Your task to perform on an android device: turn on showing notifications on the lock screen Image 0: 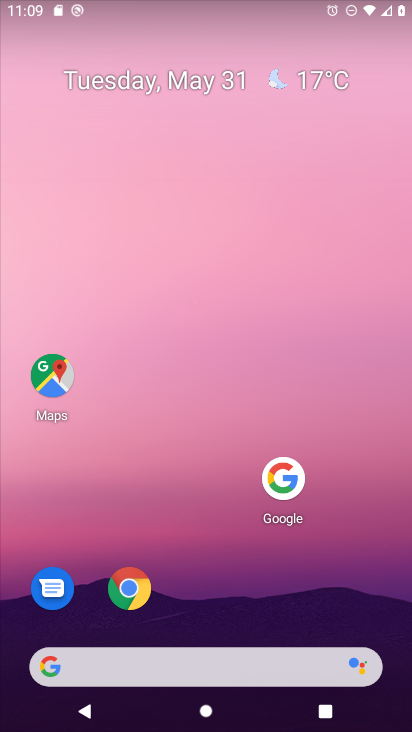
Step 0: drag from (174, 659) to (232, 141)
Your task to perform on an android device: turn on showing notifications on the lock screen Image 1: 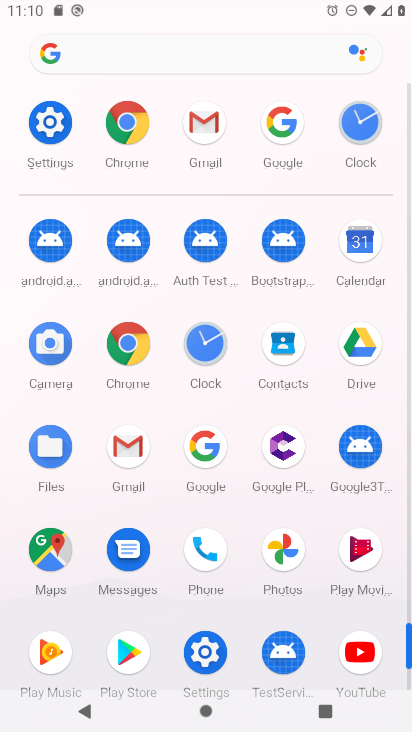
Step 1: click (55, 126)
Your task to perform on an android device: turn on showing notifications on the lock screen Image 2: 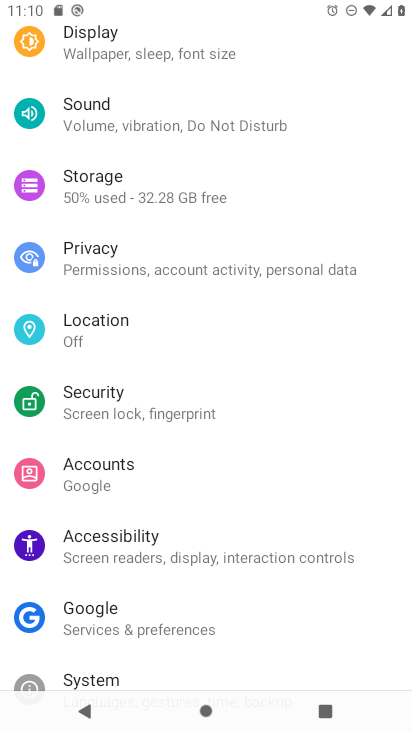
Step 2: drag from (326, 85) to (207, 629)
Your task to perform on an android device: turn on showing notifications on the lock screen Image 3: 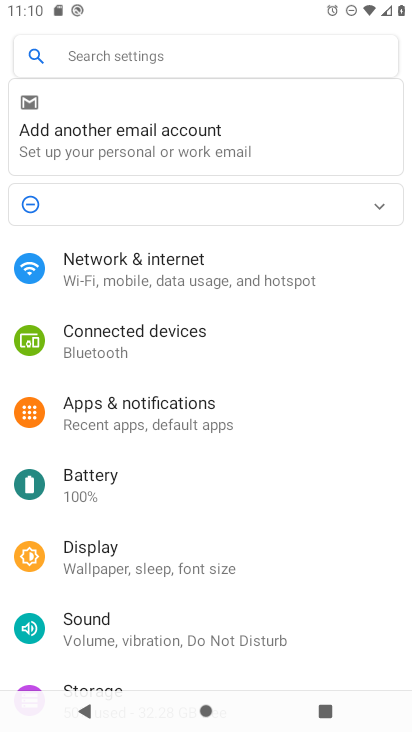
Step 3: click (153, 408)
Your task to perform on an android device: turn on showing notifications on the lock screen Image 4: 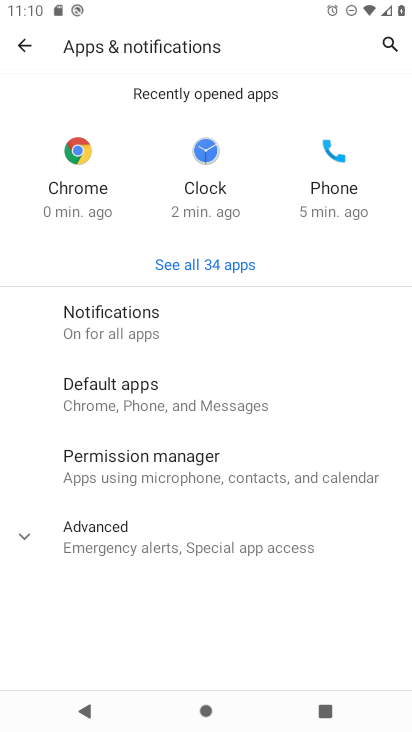
Step 4: click (109, 316)
Your task to perform on an android device: turn on showing notifications on the lock screen Image 5: 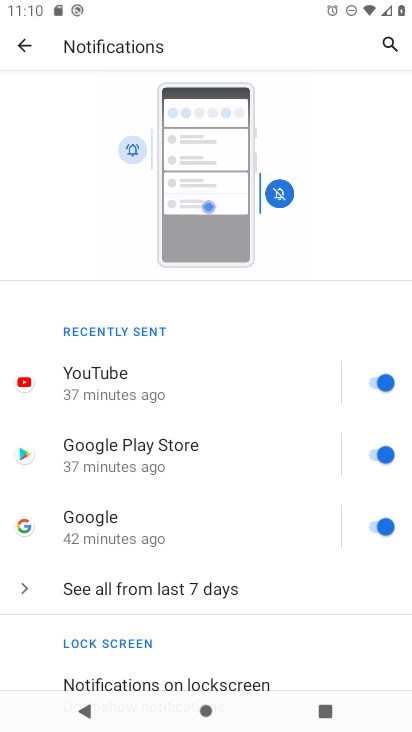
Step 5: drag from (237, 603) to (315, 132)
Your task to perform on an android device: turn on showing notifications on the lock screen Image 6: 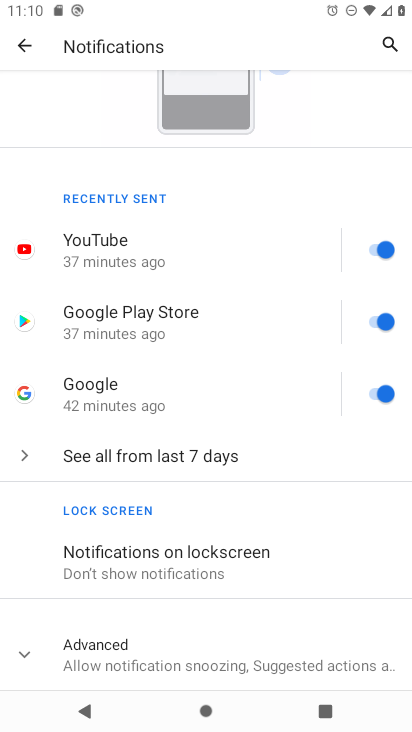
Step 6: click (211, 549)
Your task to perform on an android device: turn on showing notifications on the lock screen Image 7: 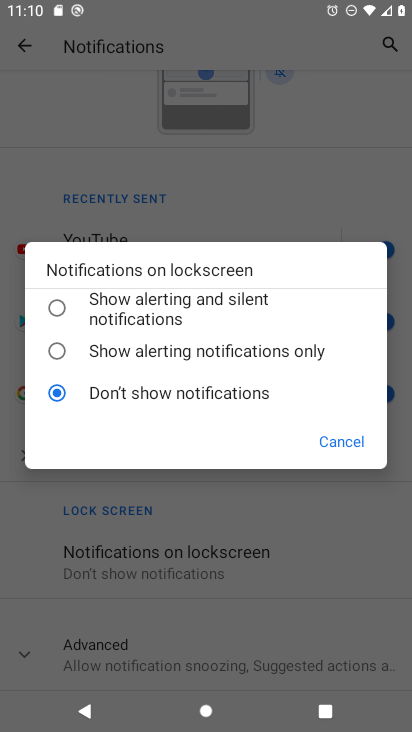
Step 7: click (53, 302)
Your task to perform on an android device: turn on showing notifications on the lock screen Image 8: 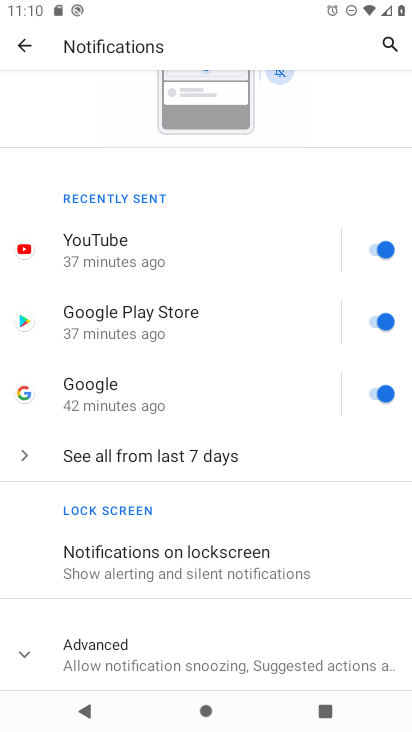
Step 8: task complete